Your task to perform on an android device: Go to Wikipedia Image 0: 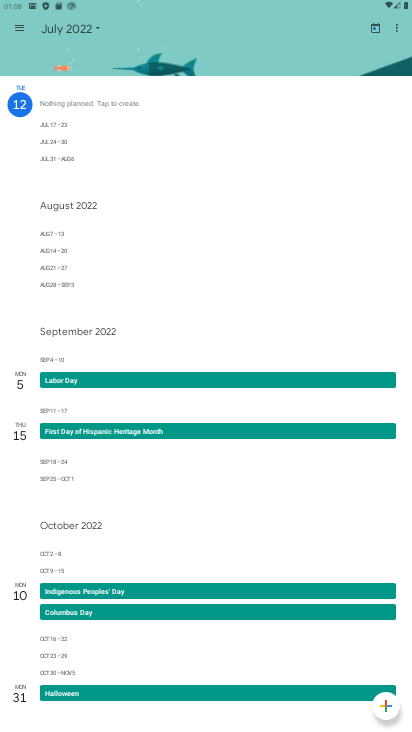
Step 0: press home button
Your task to perform on an android device: Go to Wikipedia Image 1: 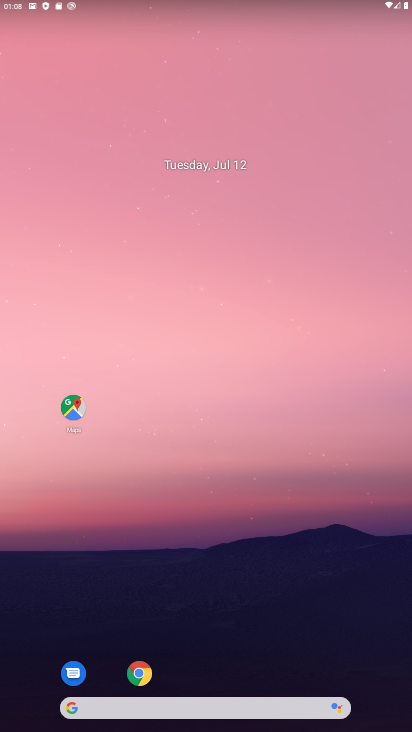
Step 1: click (373, 535)
Your task to perform on an android device: Go to Wikipedia Image 2: 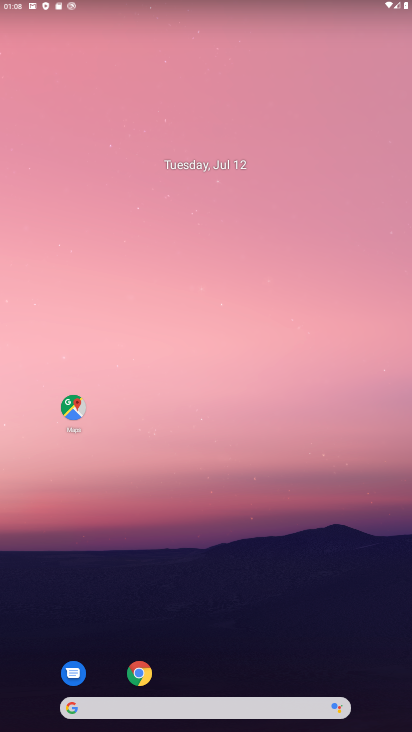
Step 2: click (222, 702)
Your task to perform on an android device: Go to Wikipedia Image 3: 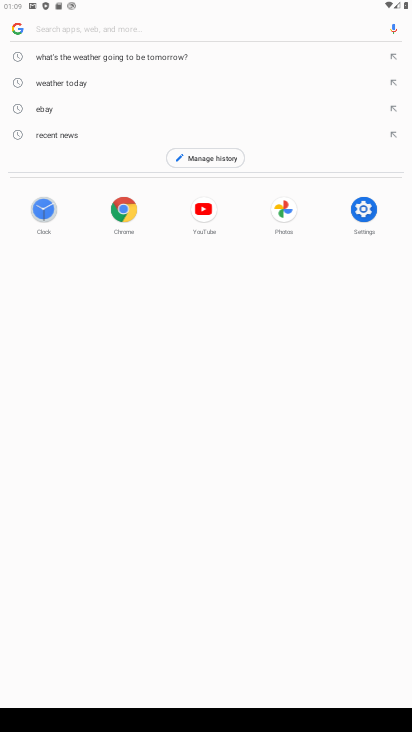
Step 3: type "Wikipedia"
Your task to perform on an android device: Go to Wikipedia Image 4: 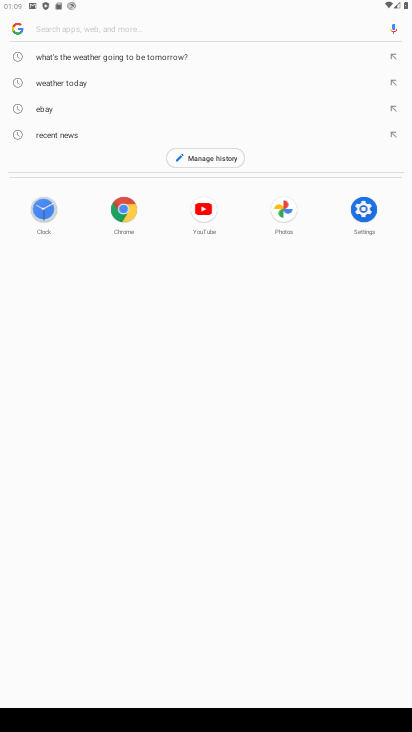
Step 4: click (88, 31)
Your task to perform on an android device: Go to Wikipedia Image 5: 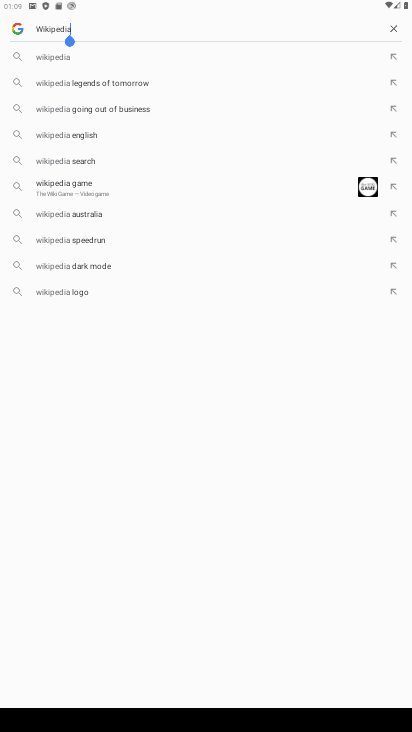
Step 5: press enter
Your task to perform on an android device: Go to Wikipedia Image 6: 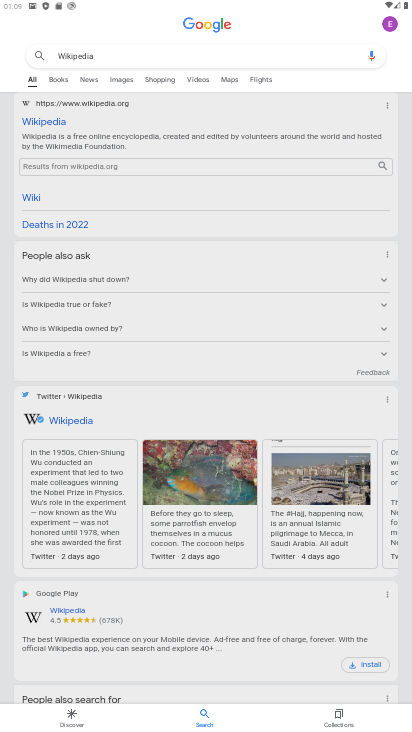
Step 6: click (55, 117)
Your task to perform on an android device: Go to Wikipedia Image 7: 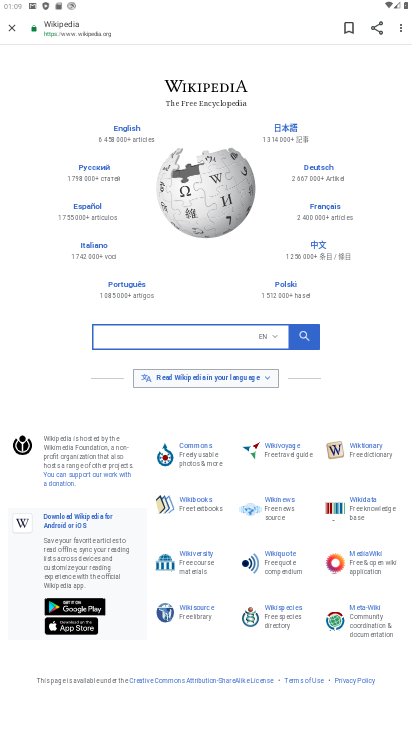
Step 7: task complete